Your task to perform on an android device: Go to privacy settings Image 0: 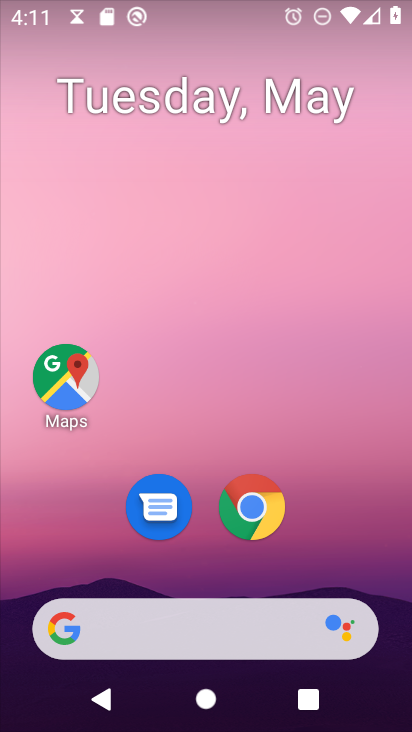
Step 0: click (256, 506)
Your task to perform on an android device: Go to privacy settings Image 1: 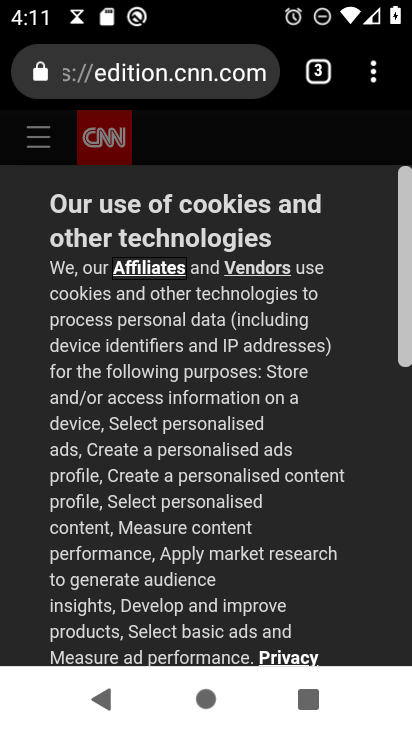
Step 1: click (369, 68)
Your task to perform on an android device: Go to privacy settings Image 2: 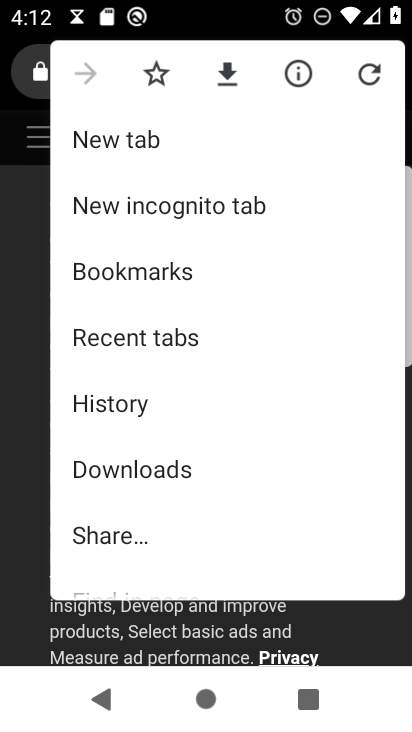
Step 2: drag from (174, 523) to (191, 248)
Your task to perform on an android device: Go to privacy settings Image 3: 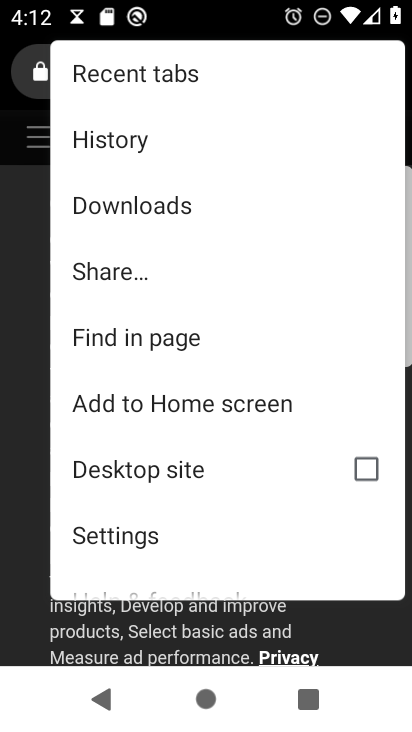
Step 3: click (221, 534)
Your task to perform on an android device: Go to privacy settings Image 4: 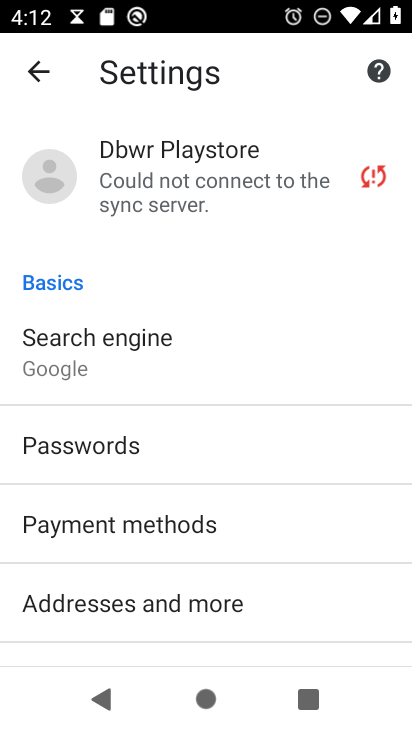
Step 4: drag from (140, 591) to (179, 166)
Your task to perform on an android device: Go to privacy settings Image 5: 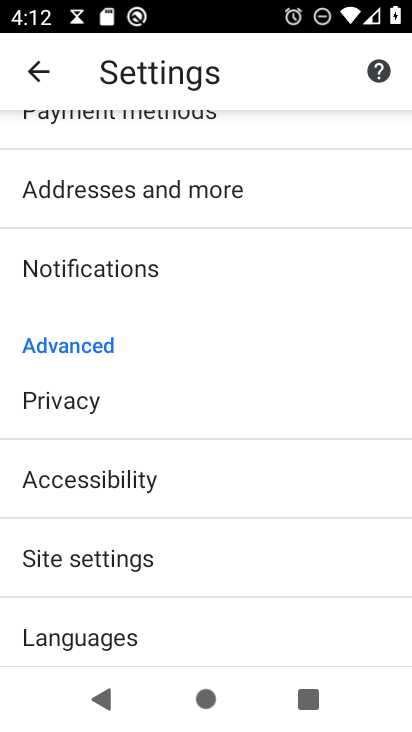
Step 5: click (90, 408)
Your task to perform on an android device: Go to privacy settings Image 6: 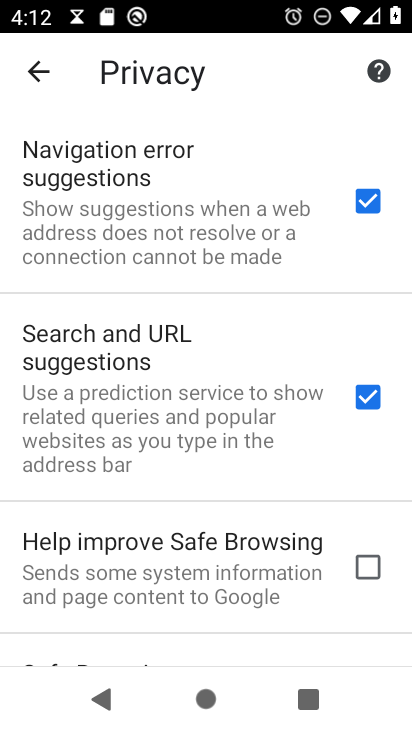
Step 6: task complete